Your task to perform on an android device: Show me popular videos on Youtube Image 0: 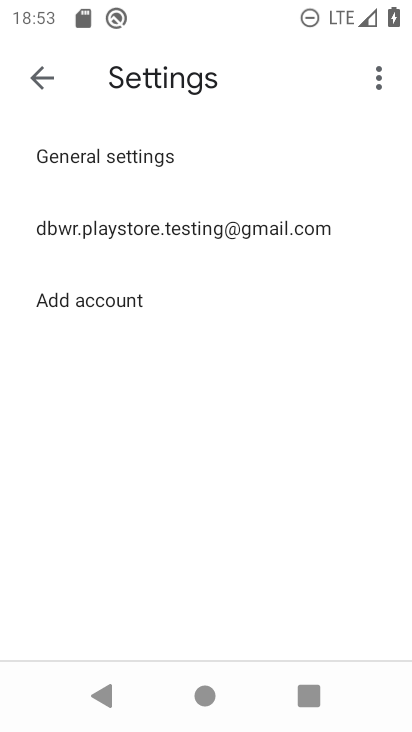
Step 0: press home button
Your task to perform on an android device: Show me popular videos on Youtube Image 1: 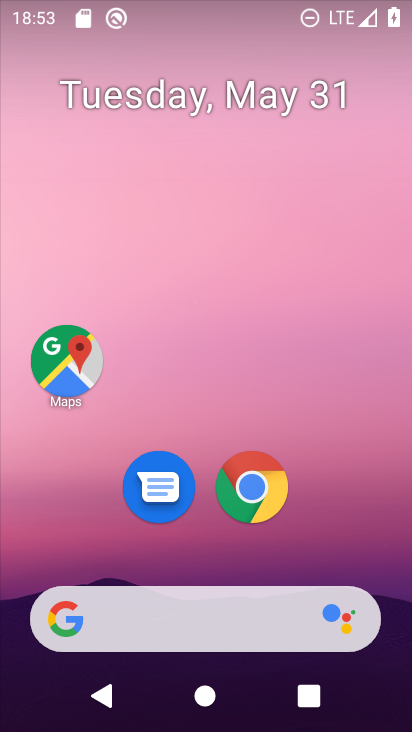
Step 1: drag from (333, 527) to (225, 125)
Your task to perform on an android device: Show me popular videos on Youtube Image 2: 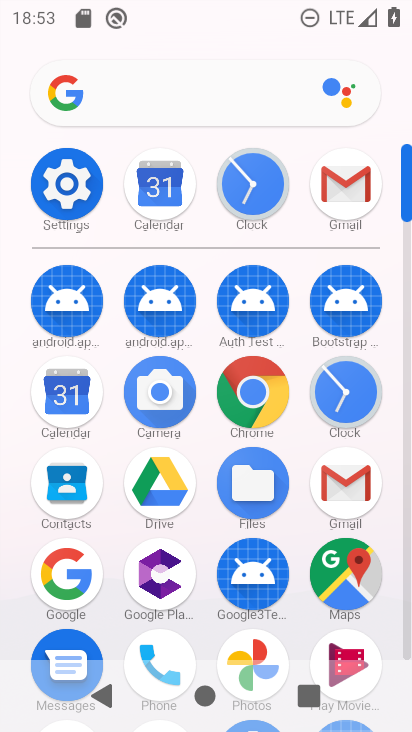
Step 2: drag from (204, 483) to (179, 263)
Your task to perform on an android device: Show me popular videos on Youtube Image 3: 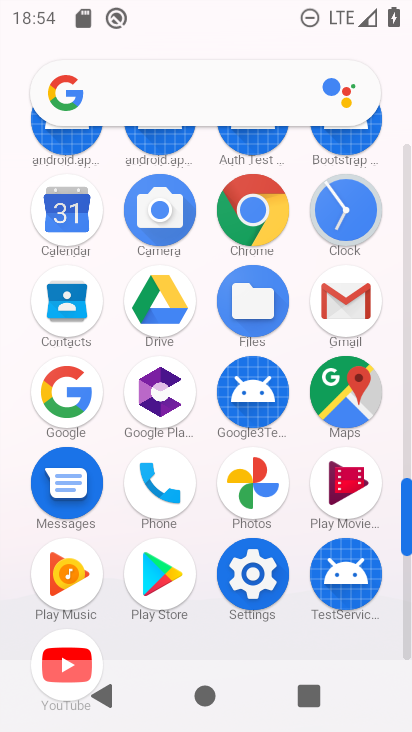
Step 3: click (72, 639)
Your task to perform on an android device: Show me popular videos on Youtube Image 4: 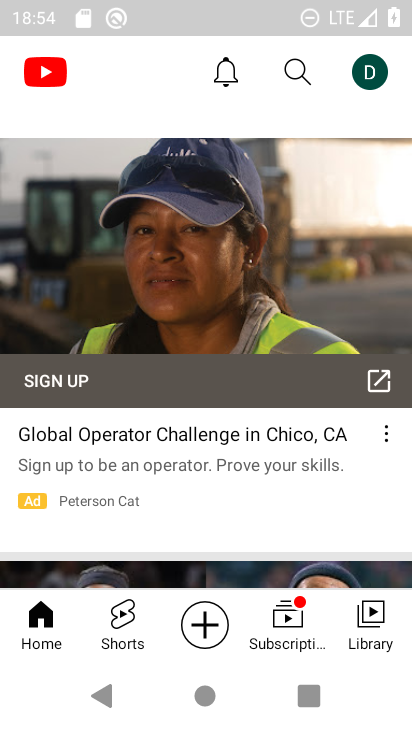
Step 4: click (133, 613)
Your task to perform on an android device: Show me popular videos on Youtube Image 5: 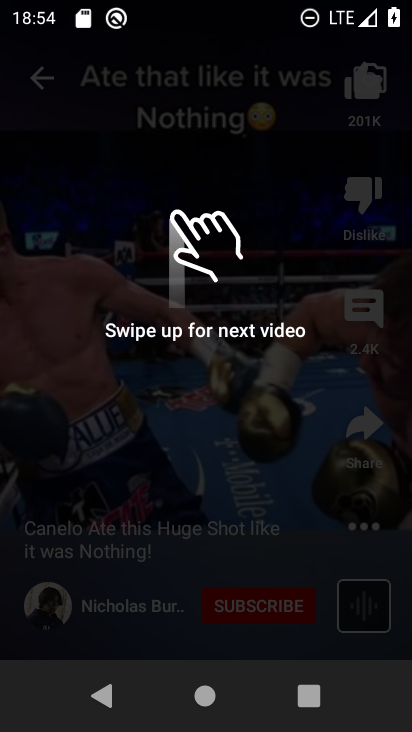
Step 5: task complete